Your task to perform on an android device: Open Chrome and go to settings Image 0: 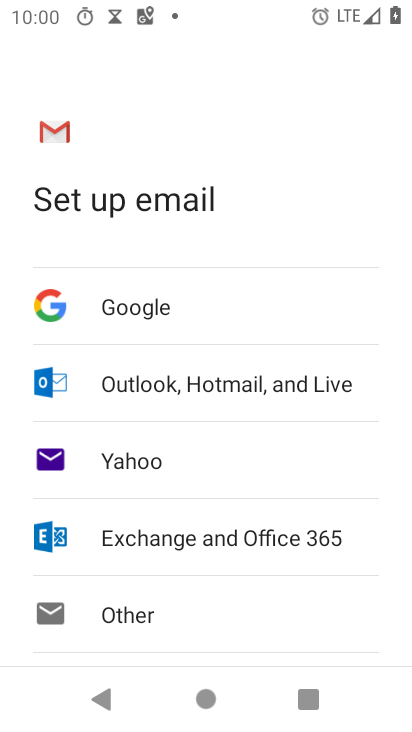
Step 0: press home button
Your task to perform on an android device: Open Chrome and go to settings Image 1: 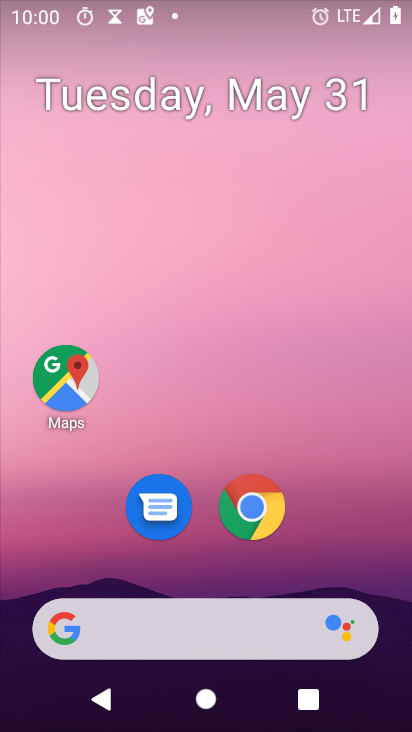
Step 1: click (246, 493)
Your task to perform on an android device: Open Chrome and go to settings Image 2: 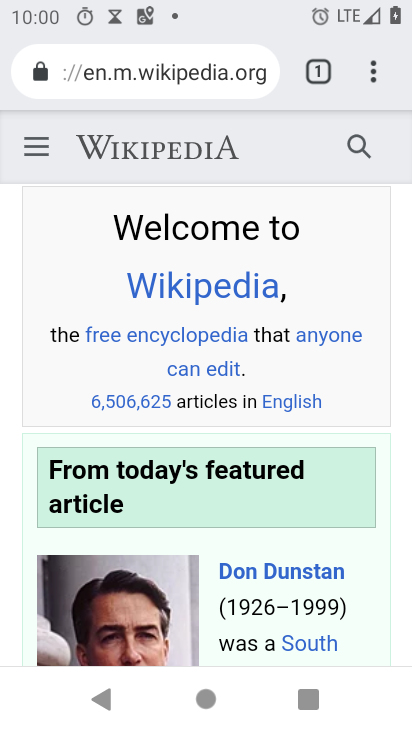
Step 2: click (375, 70)
Your task to perform on an android device: Open Chrome and go to settings Image 3: 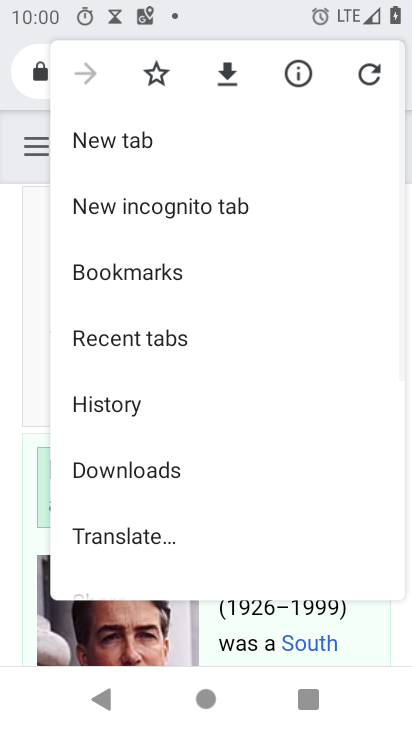
Step 3: drag from (54, 565) to (339, 97)
Your task to perform on an android device: Open Chrome and go to settings Image 4: 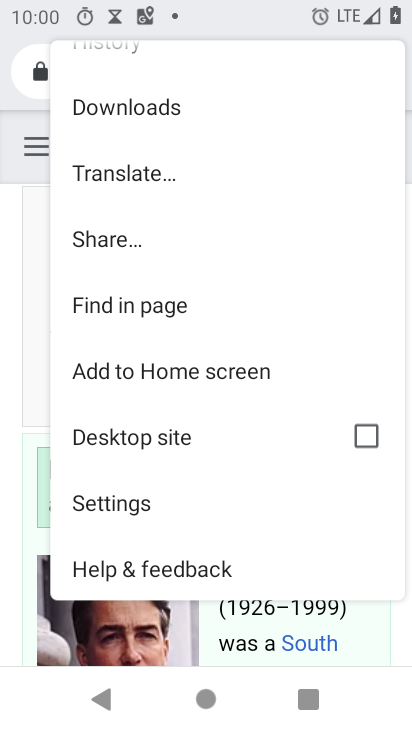
Step 4: click (154, 495)
Your task to perform on an android device: Open Chrome and go to settings Image 5: 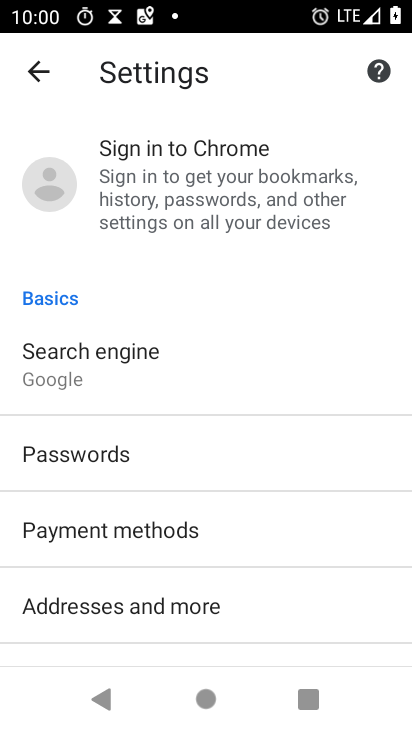
Step 5: task complete